Your task to perform on an android device: change timer sound Image 0: 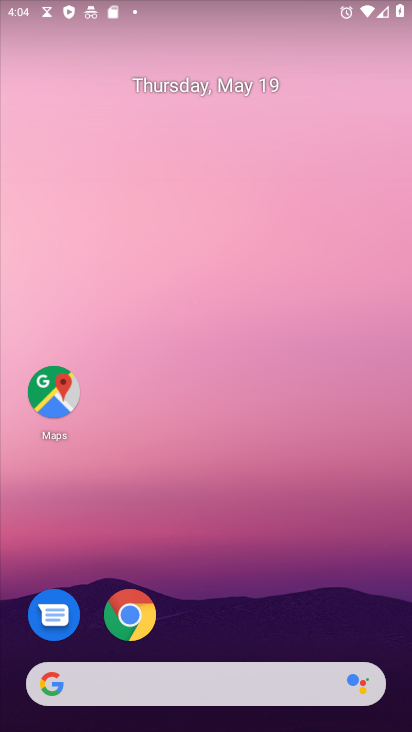
Step 0: drag from (275, 665) to (265, 124)
Your task to perform on an android device: change timer sound Image 1: 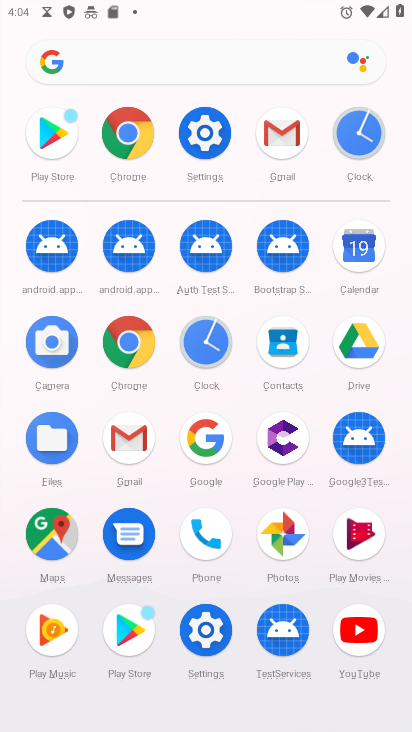
Step 1: click (362, 134)
Your task to perform on an android device: change timer sound Image 2: 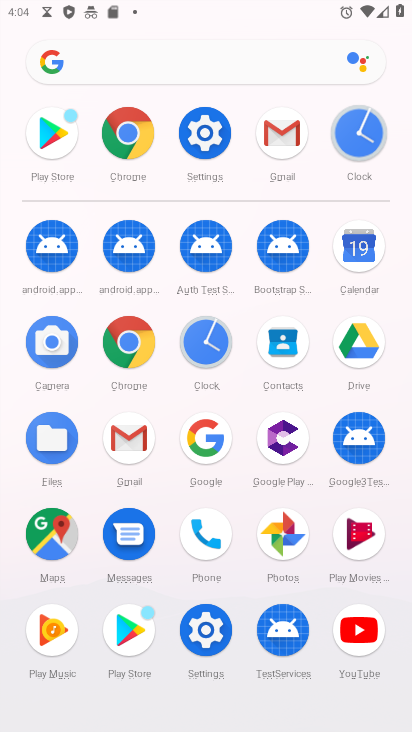
Step 2: click (363, 134)
Your task to perform on an android device: change timer sound Image 3: 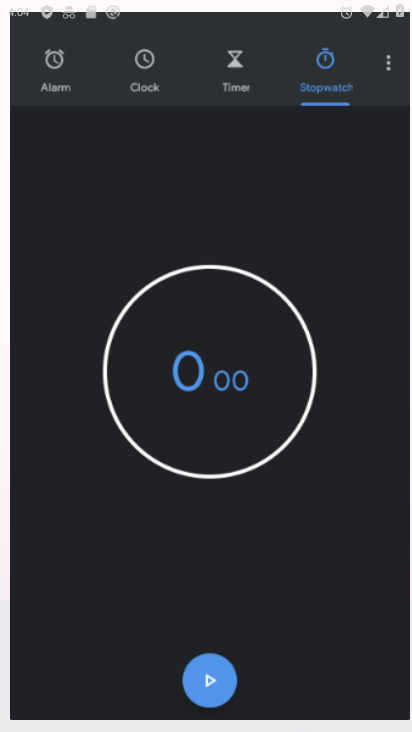
Step 3: click (363, 134)
Your task to perform on an android device: change timer sound Image 4: 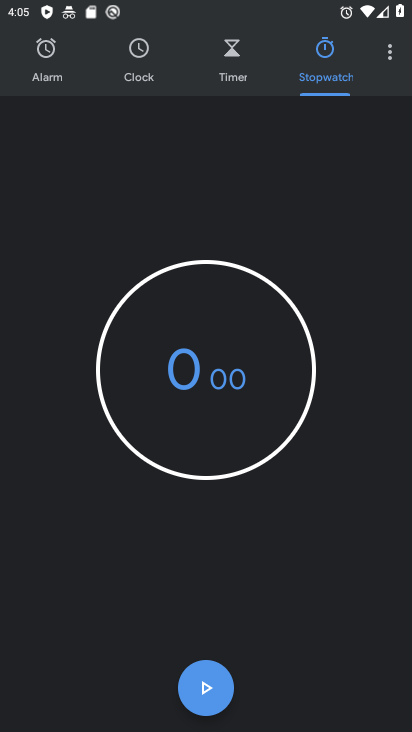
Step 4: click (220, 71)
Your task to perform on an android device: change timer sound Image 5: 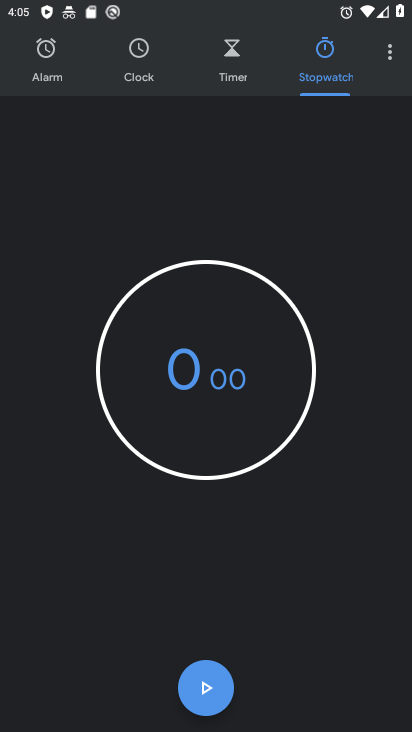
Step 5: click (220, 71)
Your task to perform on an android device: change timer sound Image 6: 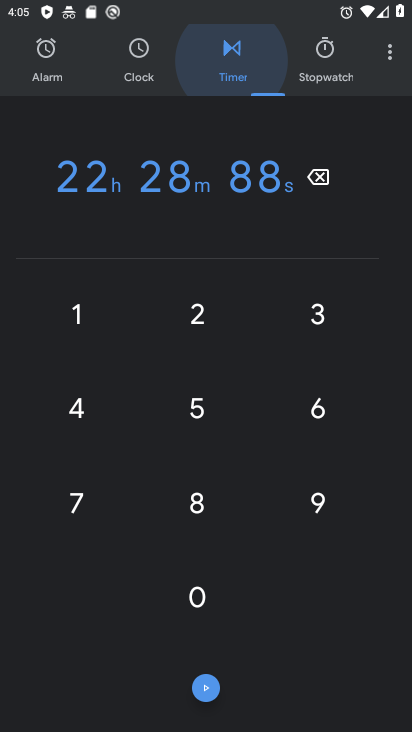
Step 6: click (220, 70)
Your task to perform on an android device: change timer sound Image 7: 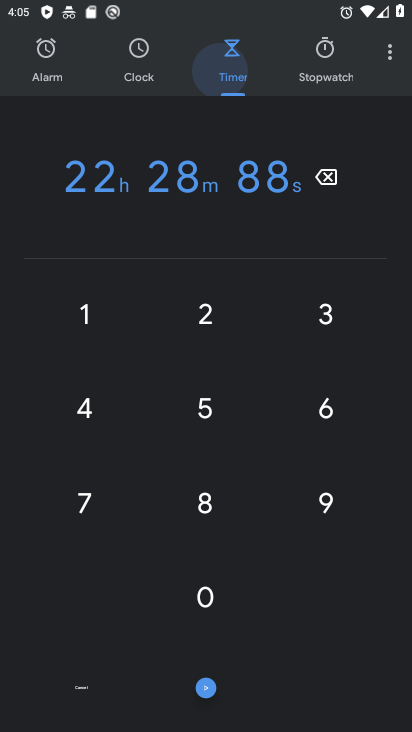
Step 7: click (220, 70)
Your task to perform on an android device: change timer sound Image 8: 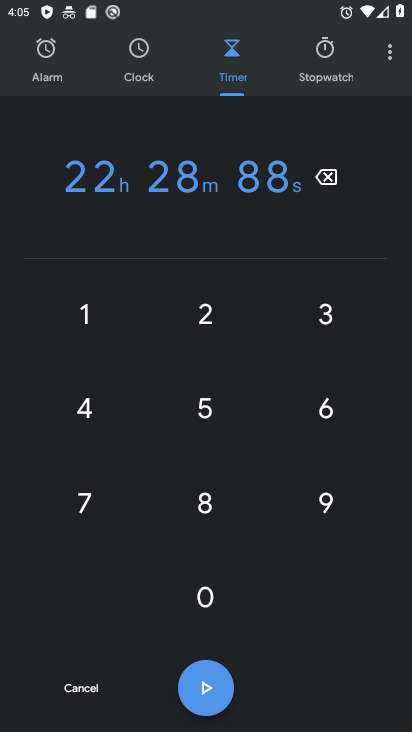
Step 8: click (207, 502)
Your task to perform on an android device: change timer sound Image 9: 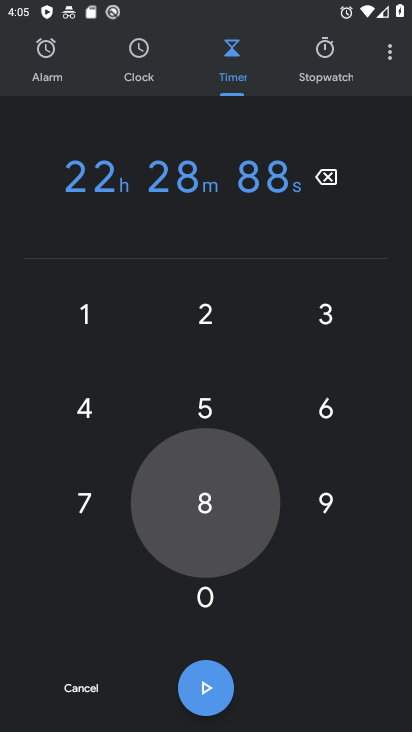
Step 9: click (205, 499)
Your task to perform on an android device: change timer sound Image 10: 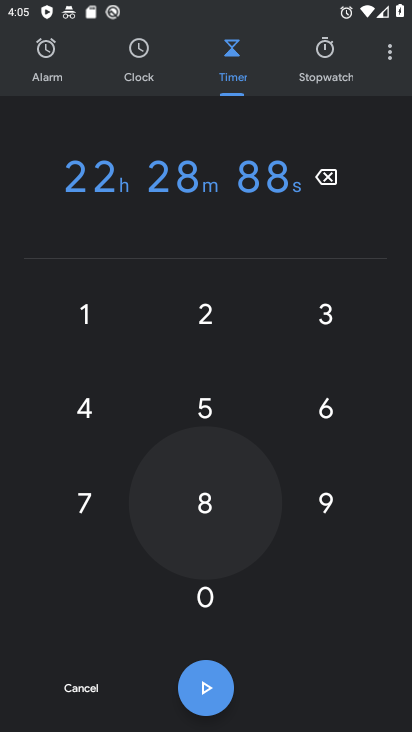
Step 10: click (205, 496)
Your task to perform on an android device: change timer sound Image 11: 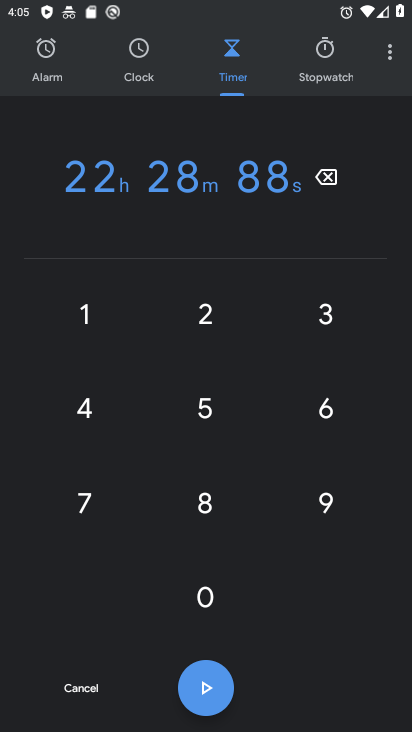
Step 11: click (203, 493)
Your task to perform on an android device: change timer sound Image 12: 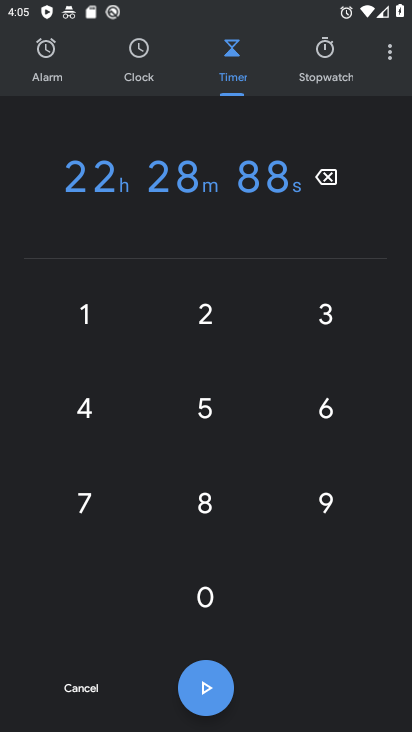
Step 12: click (213, 681)
Your task to perform on an android device: change timer sound Image 13: 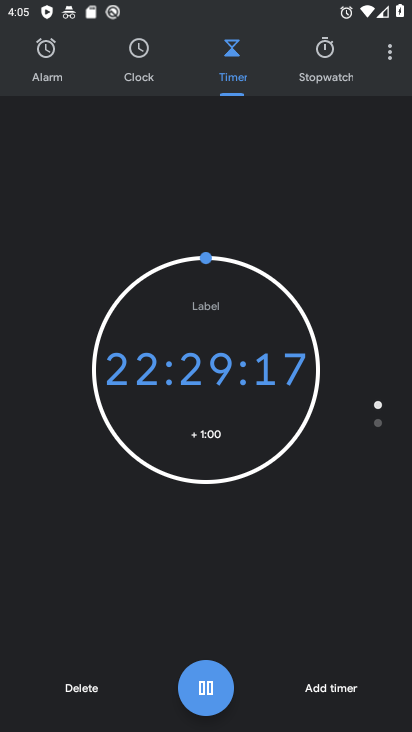
Step 13: click (203, 697)
Your task to perform on an android device: change timer sound Image 14: 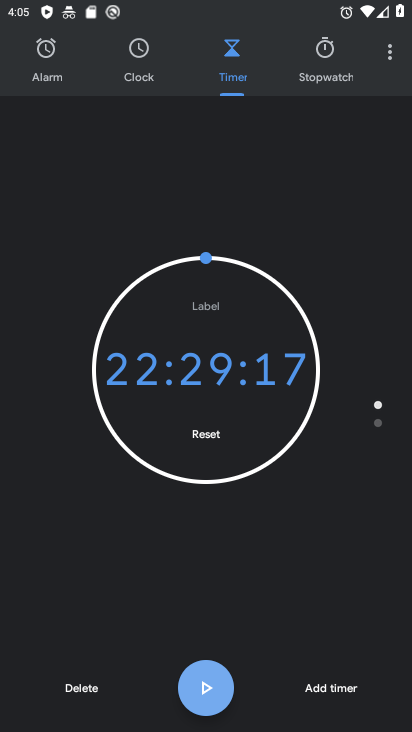
Step 14: click (204, 687)
Your task to perform on an android device: change timer sound Image 15: 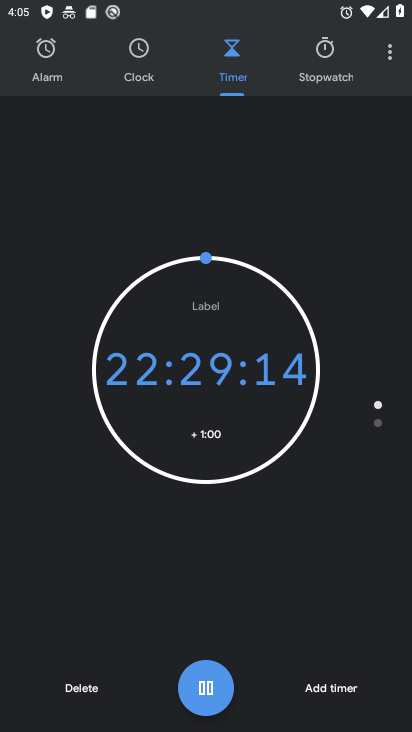
Step 15: click (326, 684)
Your task to perform on an android device: change timer sound Image 16: 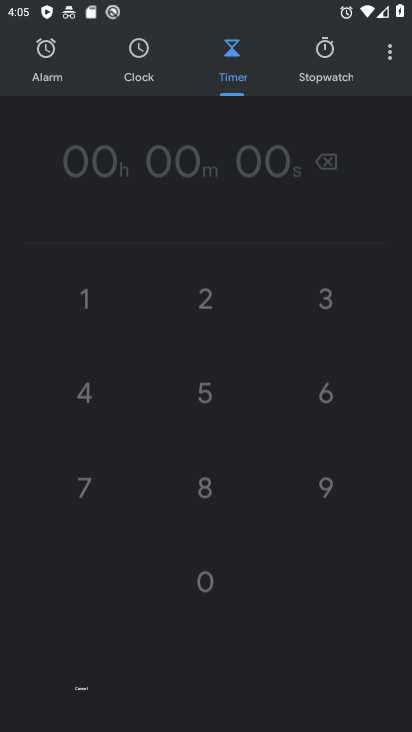
Step 16: task complete